Your task to perform on an android device: move an email to a new category in the gmail app Image 0: 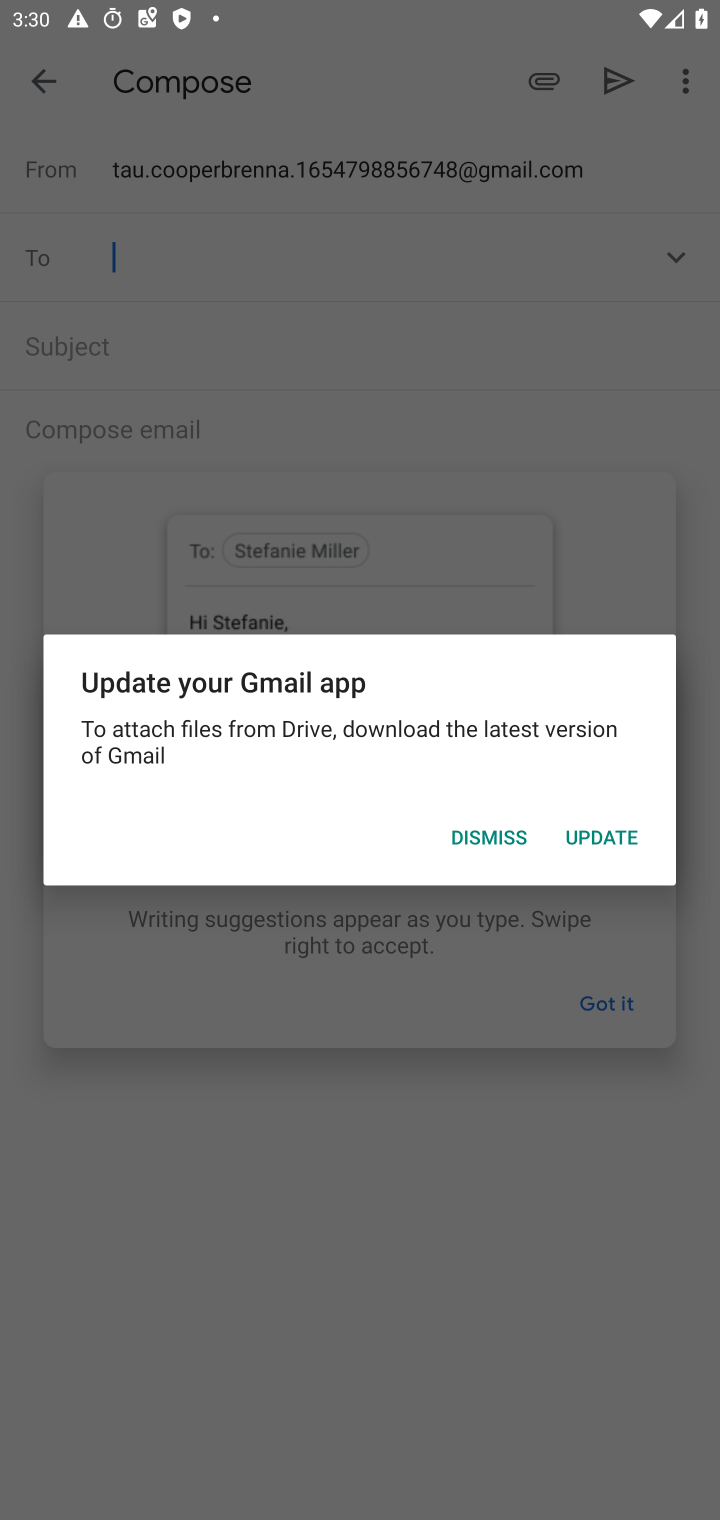
Step 0: press home button
Your task to perform on an android device: move an email to a new category in the gmail app Image 1: 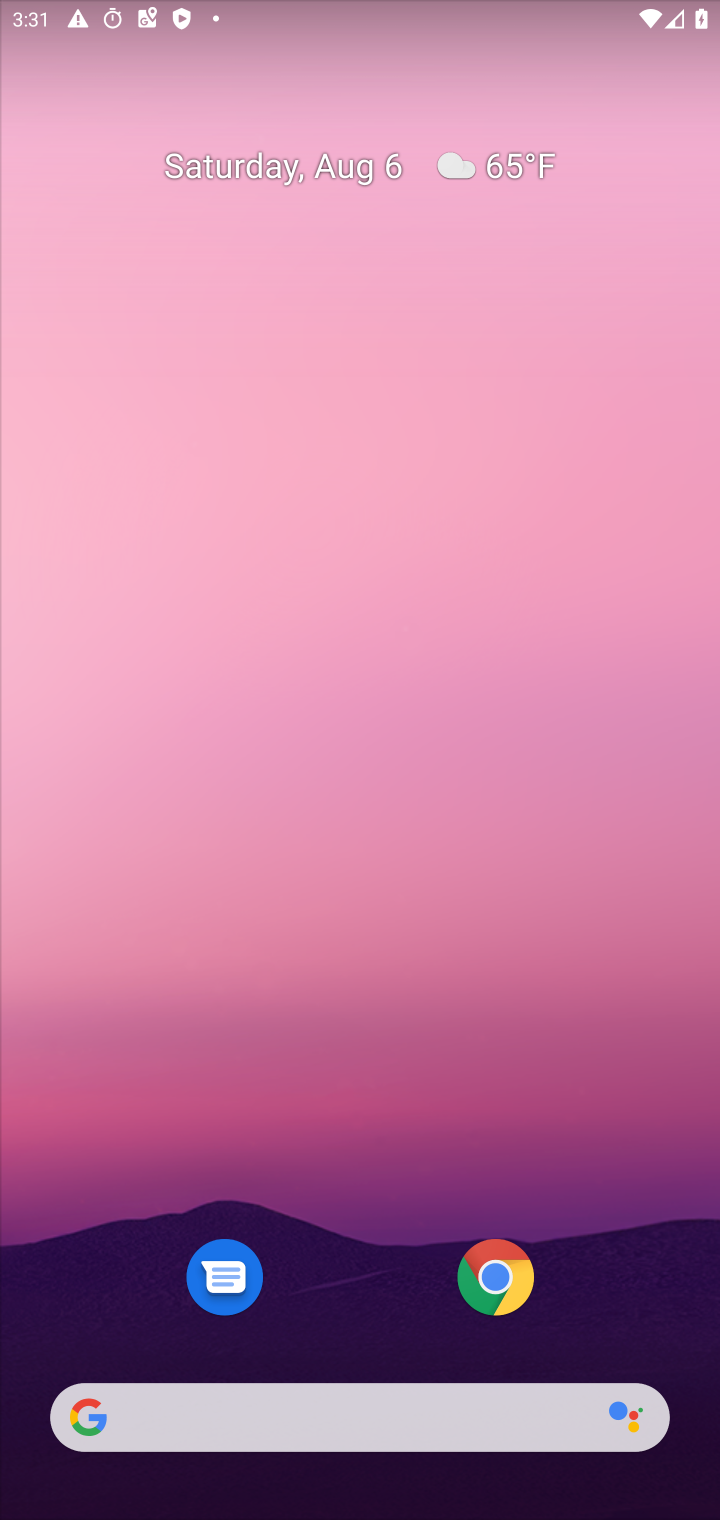
Step 1: drag from (445, 1424) to (511, 42)
Your task to perform on an android device: move an email to a new category in the gmail app Image 2: 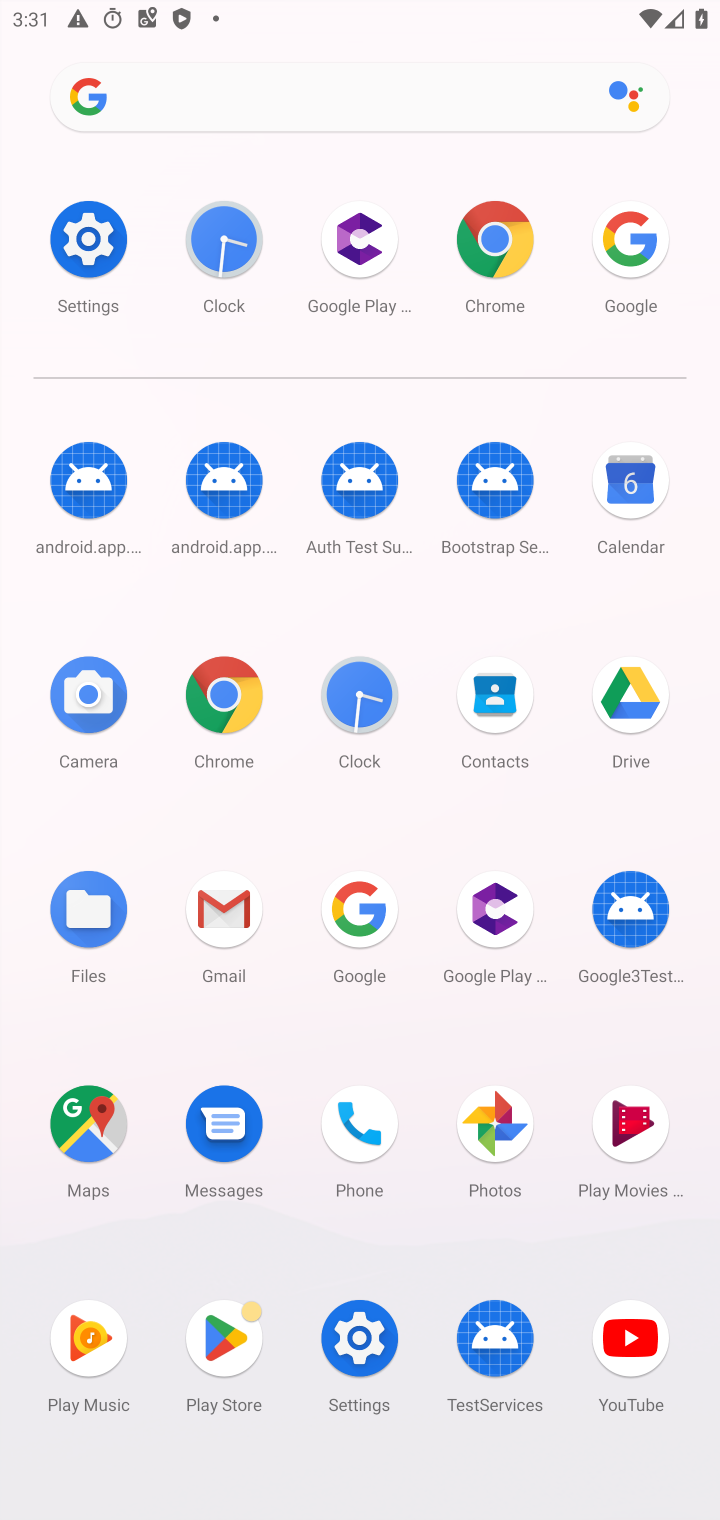
Step 2: click (220, 911)
Your task to perform on an android device: move an email to a new category in the gmail app Image 3: 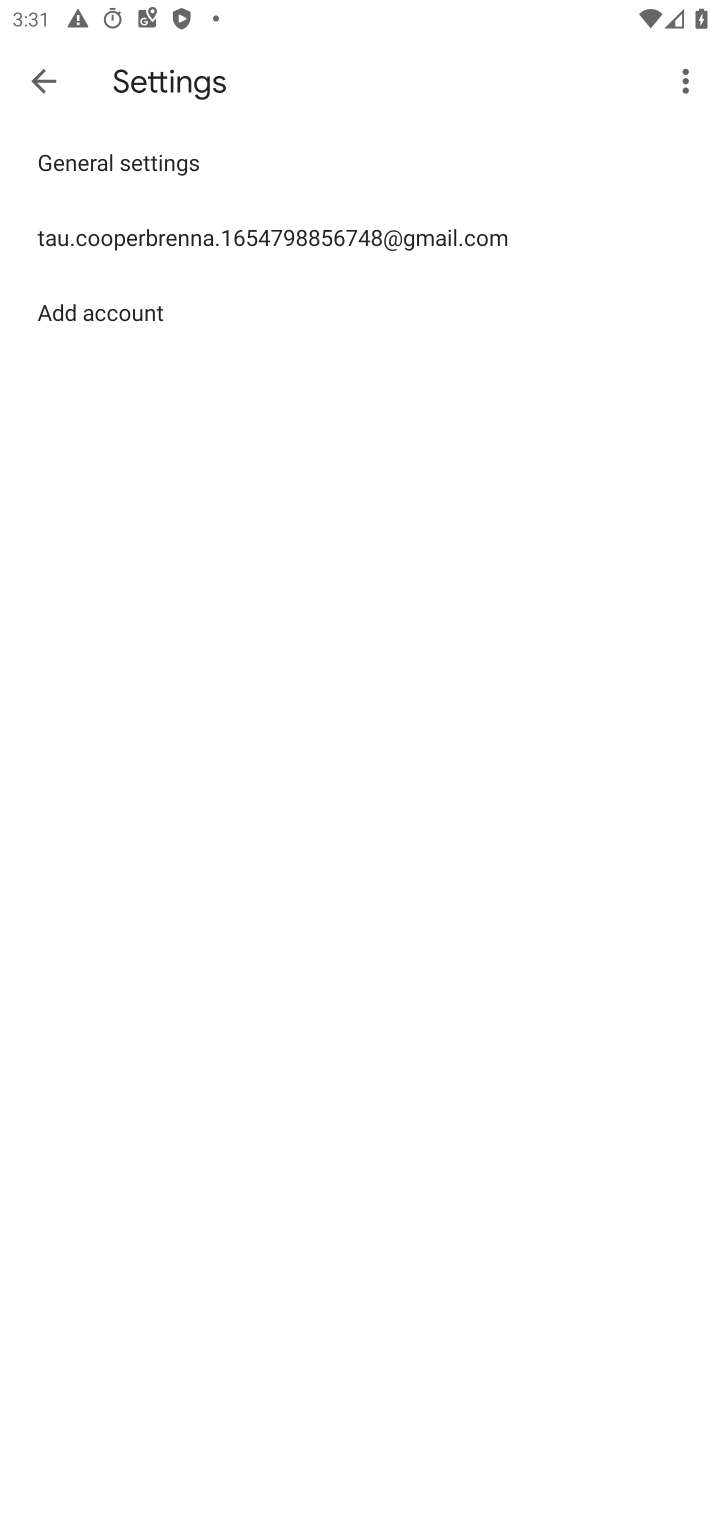
Step 3: press back button
Your task to perform on an android device: move an email to a new category in the gmail app Image 4: 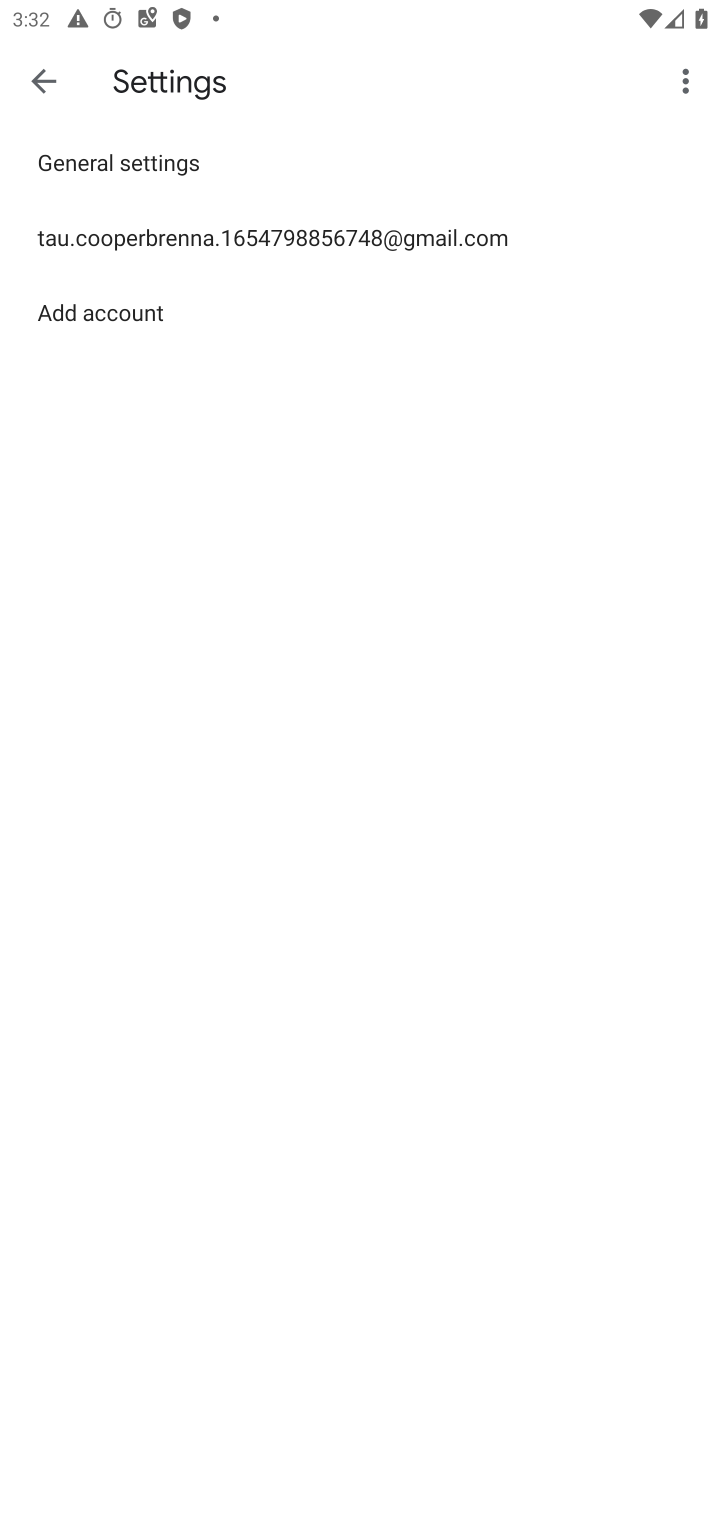
Step 4: press back button
Your task to perform on an android device: move an email to a new category in the gmail app Image 5: 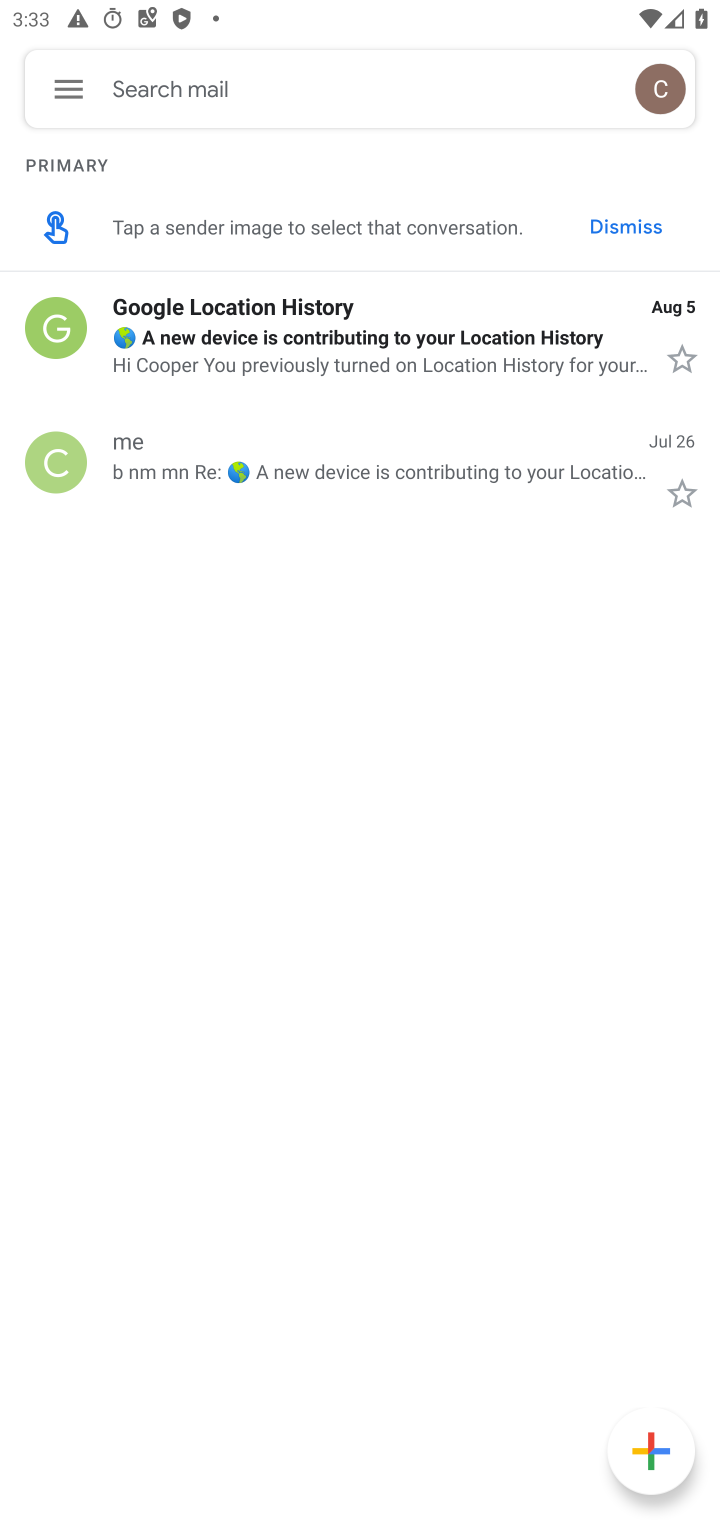
Step 5: click (287, 361)
Your task to perform on an android device: move an email to a new category in the gmail app Image 6: 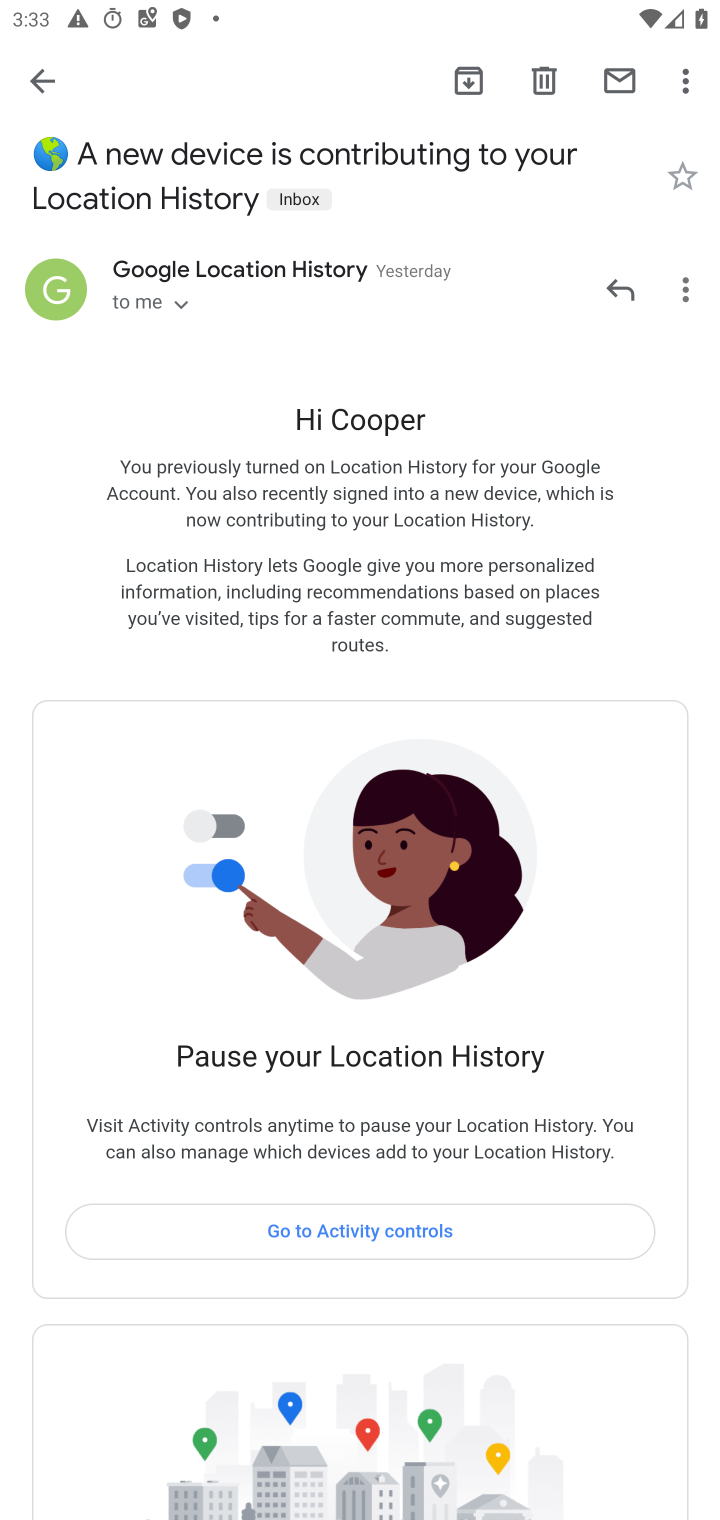
Step 6: click (681, 77)
Your task to perform on an android device: move an email to a new category in the gmail app Image 7: 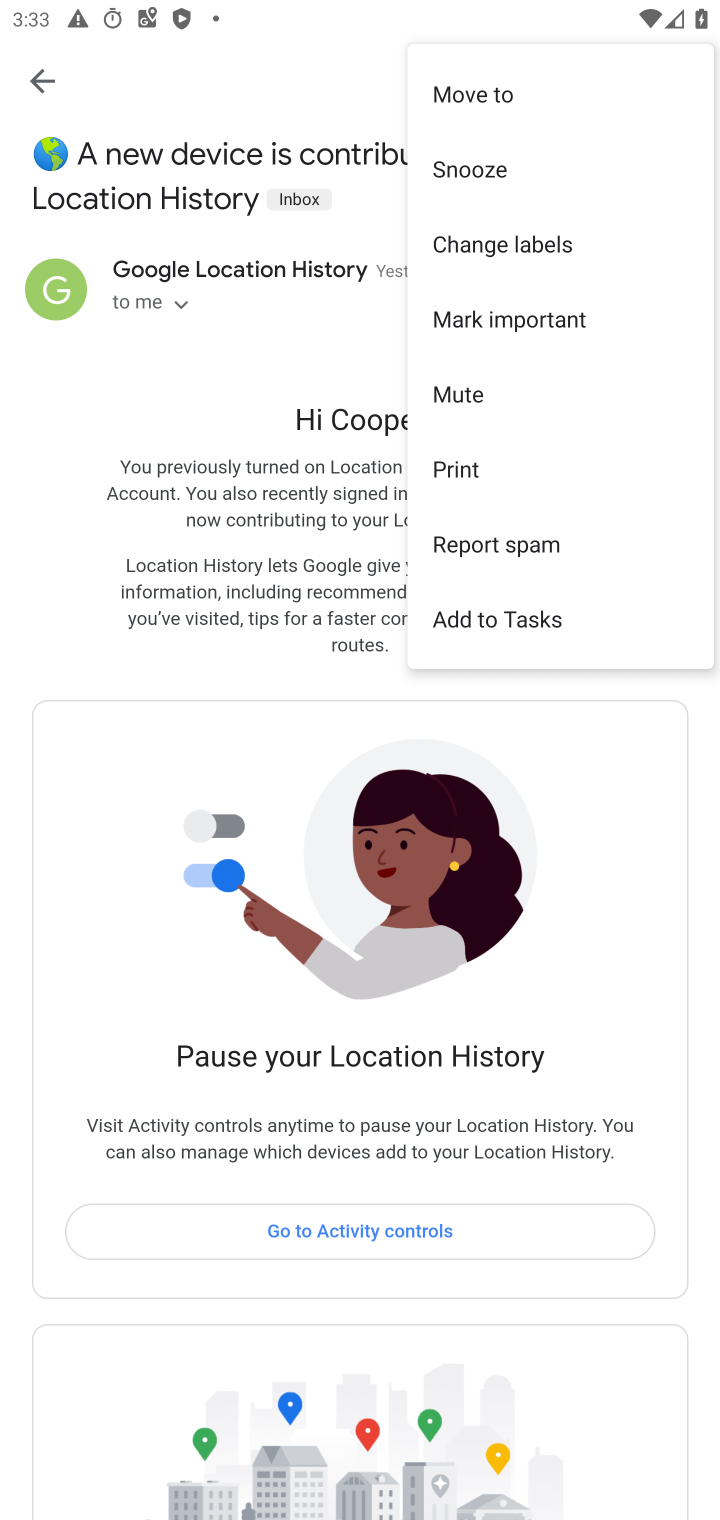
Step 7: click (529, 239)
Your task to perform on an android device: move an email to a new category in the gmail app Image 8: 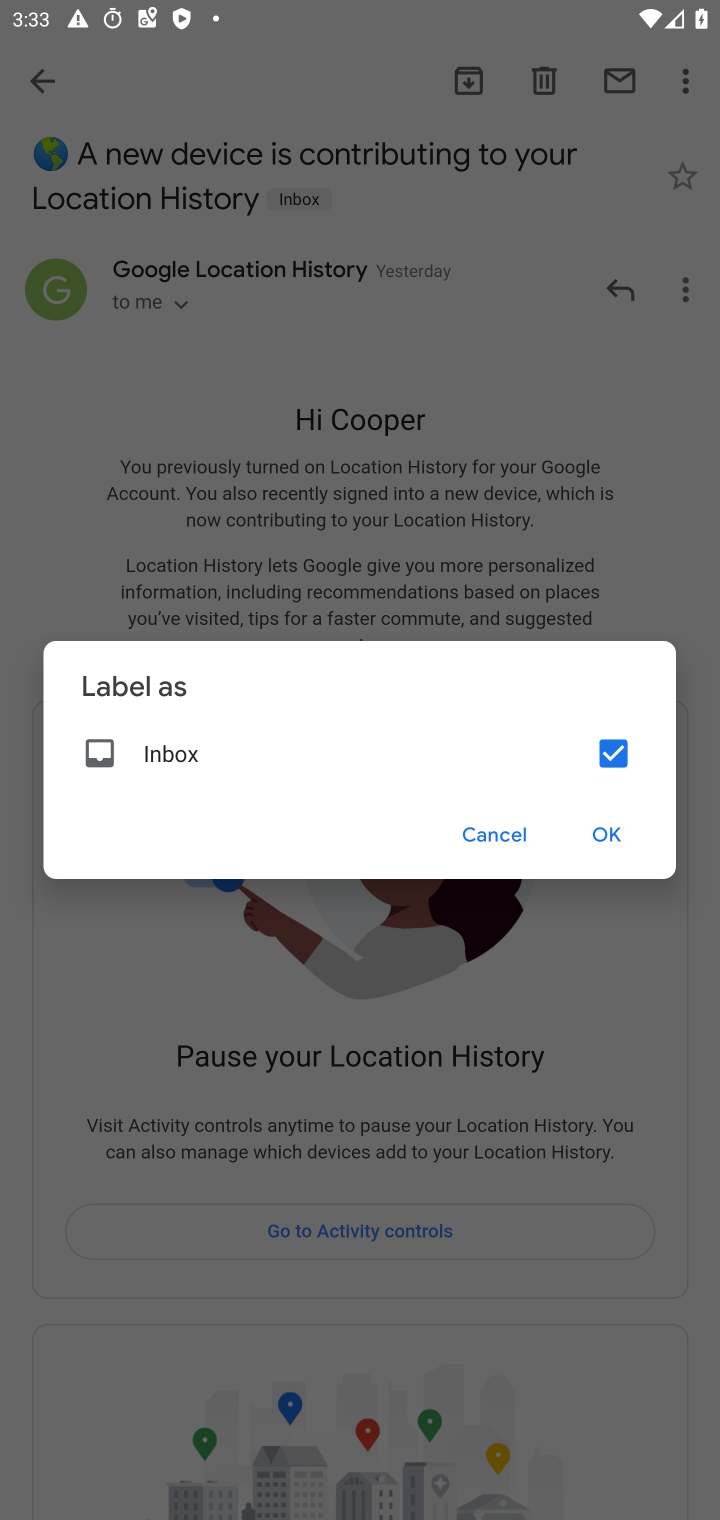
Step 8: click (607, 824)
Your task to perform on an android device: move an email to a new category in the gmail app Image 9: 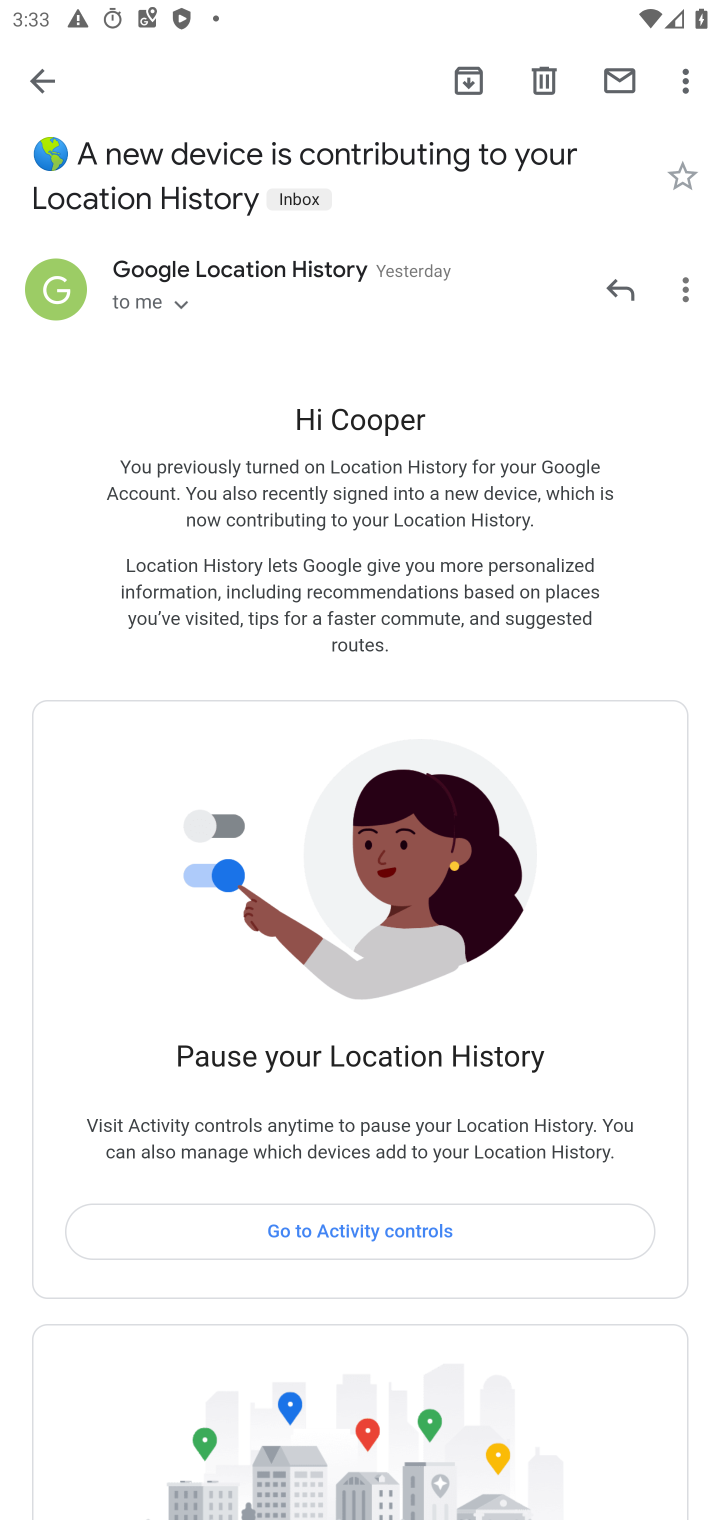
Step 9: task complete